Your task to perform on an android device: see sites visited before in the chrome app Image 0: 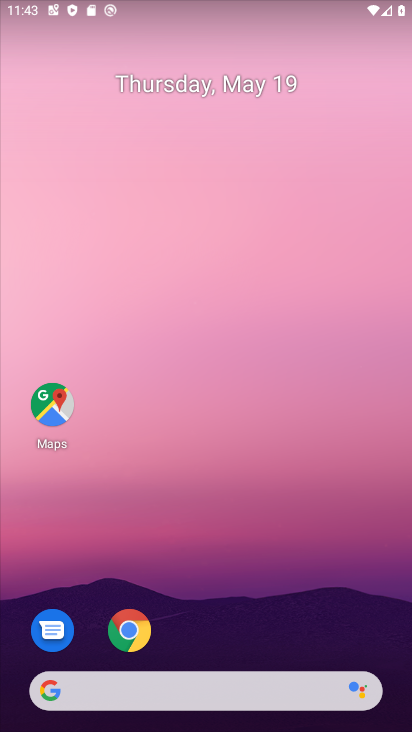
Step 0: click (130, 632)
Your task to perform on an android device: see sites visited before in the chrome app Image 1: 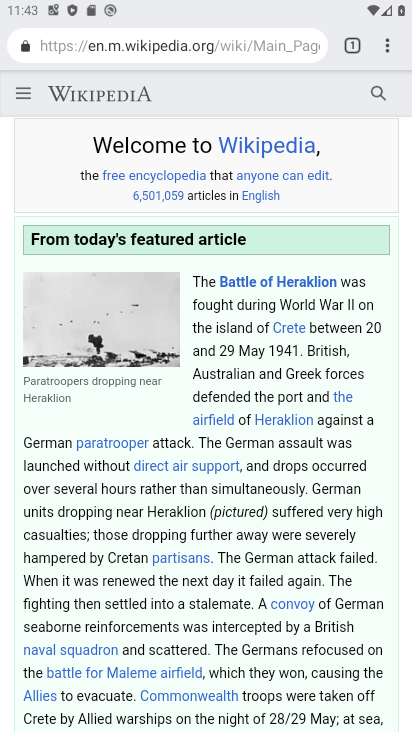
Step 1: click (388, 46)
Your task to perform on an android device: see sites visited before in the chrome app Image 2: 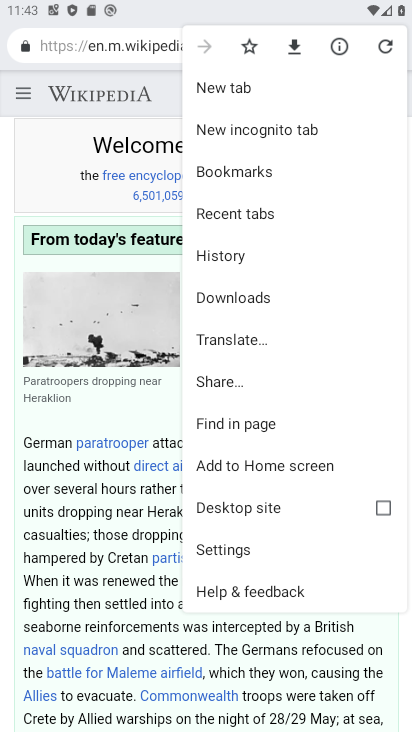
Step 2: click (234, 260)
Your task to perform on an android device: see sites visited before in the chrome app Image 3: 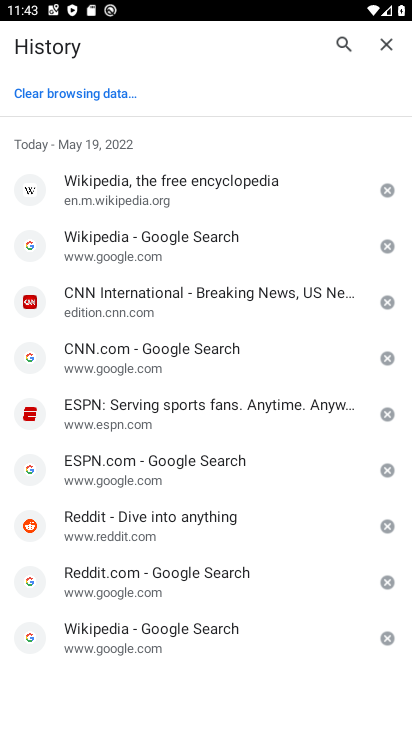
Step 3: task complete